Your task to perform on an android device: Open ESPN.com Image 0: 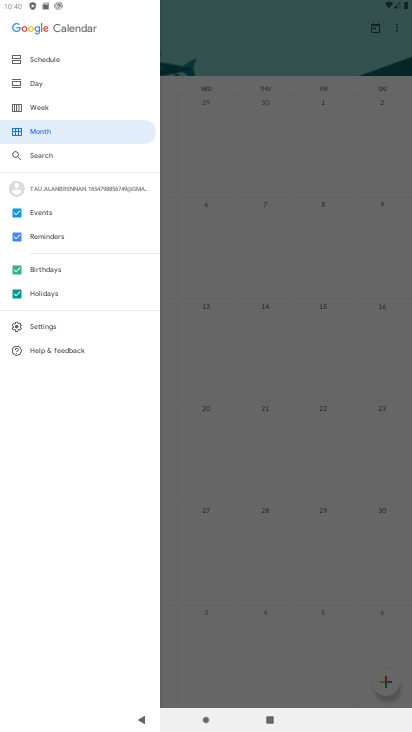
Step 0: press home button
Your task to perform on an android device: Open ESPN.com Image 1: 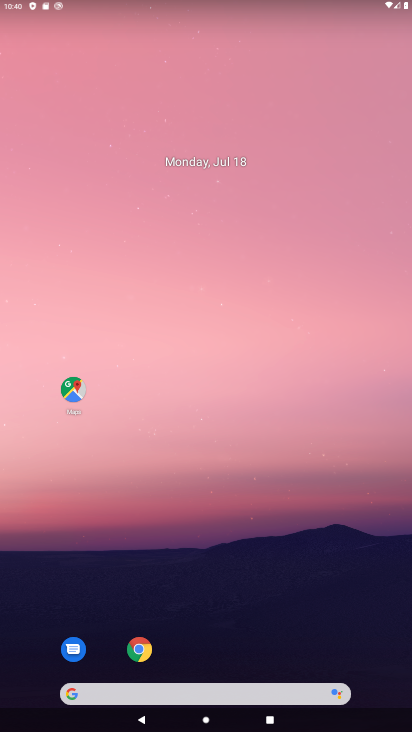
Step 1: click (139, 645)
Your task to perform on an android device: Open ESPN.com Image 2: 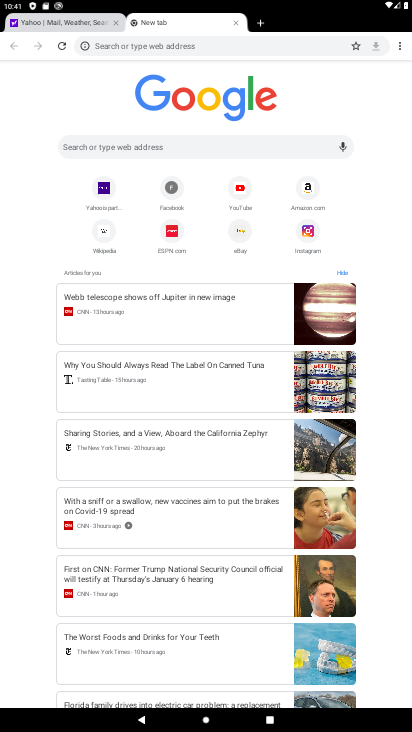
Step 2: click (171, 226)
Your task to perform on an android device: Open ESPN.com Image 3: 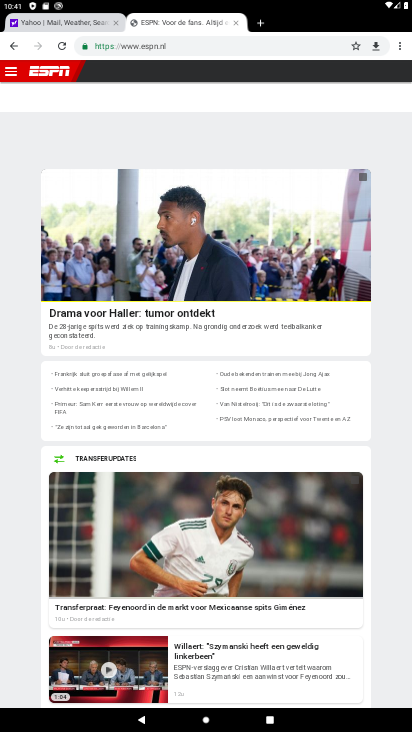
Step 3: task complete